Your task to perform on an android device: Open ESPN.com Image 0: 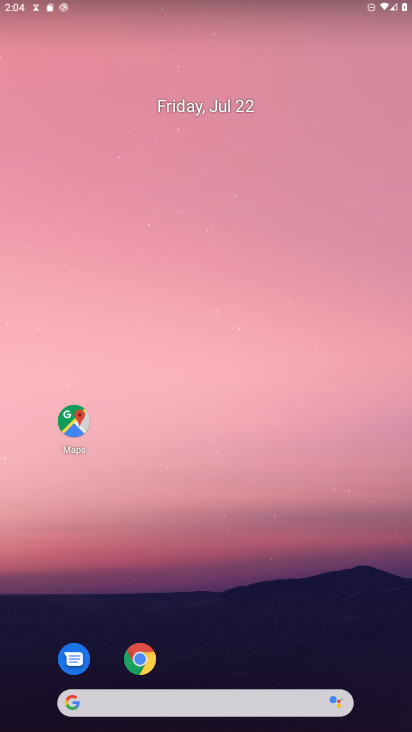
Step 0: drag from (201, 447) to (203, 104)
Your task to perform on an android device: Open ESPN.com Image 1: 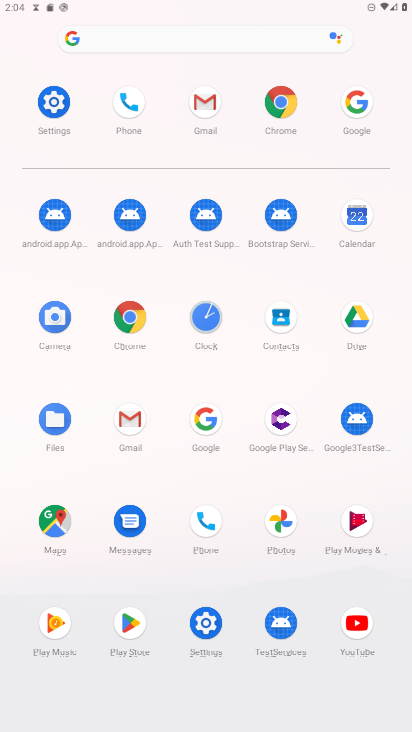
Step 1: click (271, 108)
Your task to perform on an android device: Open ESPN.com Image 2: 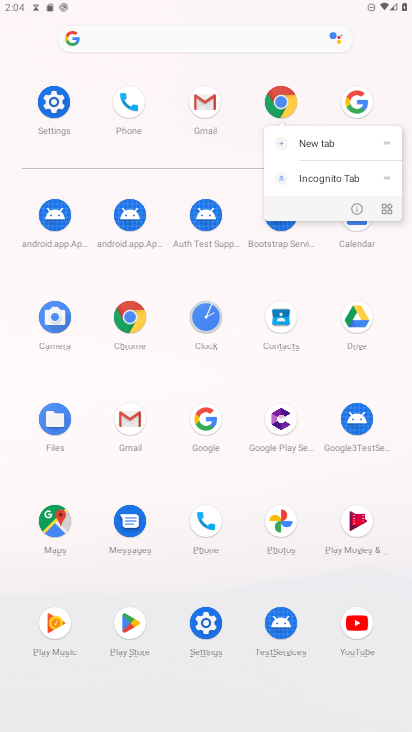
Step 2: click (280, 107)
Your task to perform on an android device: Open ESPN.com Image 3: 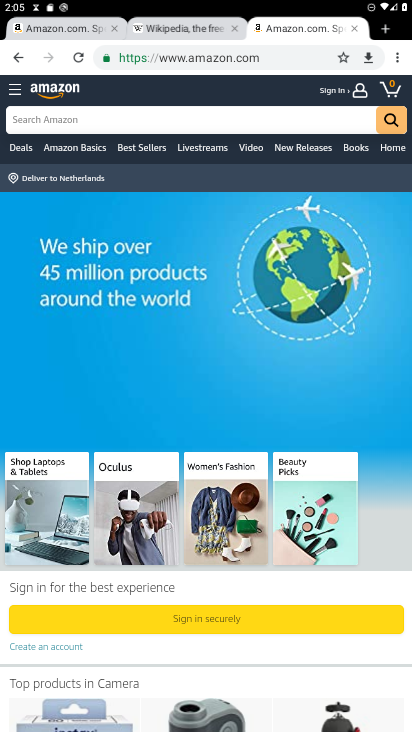
Step 3: click (381, 37)
Your task to perform on an android device: Open ESPN.com Image 4: 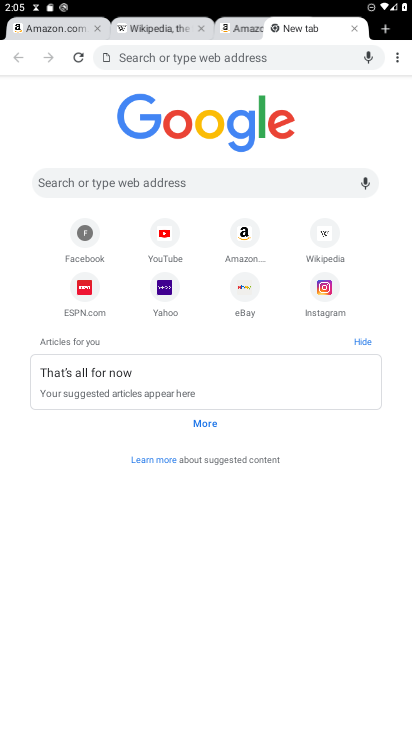
Step 4: click (112, 178)
Your task to perform on an android device: Open ESPN.com Image 5: 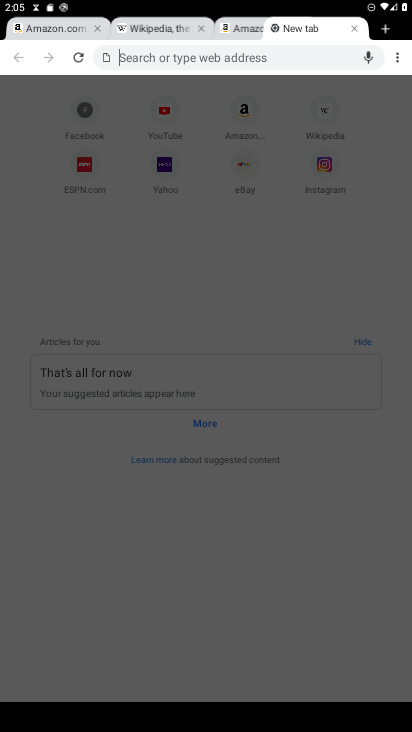
Step 5: type "ESPN.com"
Your task to perform on an android device: Open ESPN.com Image 6: 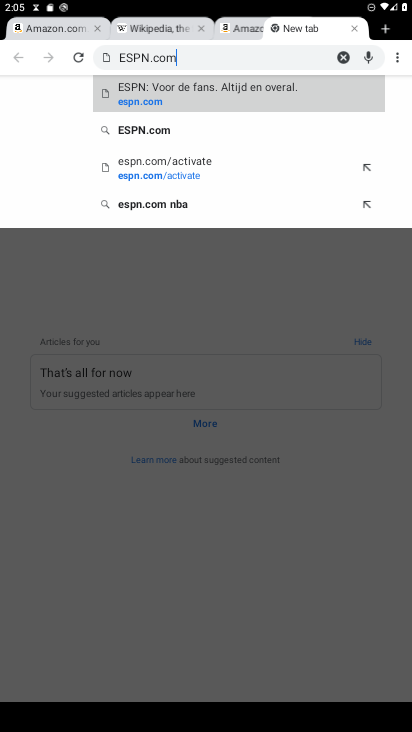
Step 6: click (139, 125)
Your task to perform on an android device: Open ESPN.com Image 7: 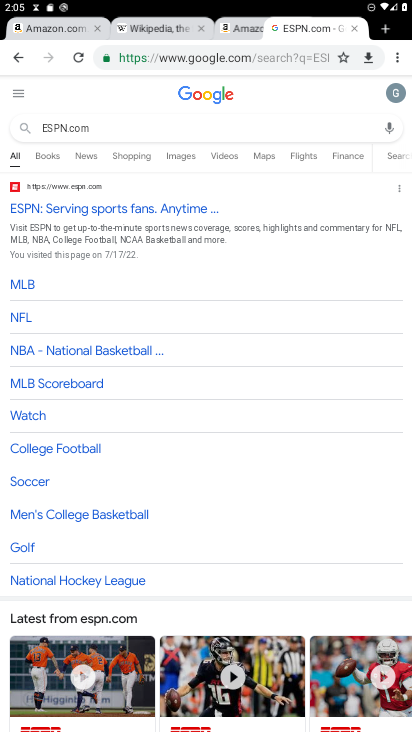
Step 7: task complete